Your task to perform on an android device: uninstall "Spotify: Music and Podcasts" Image 0: 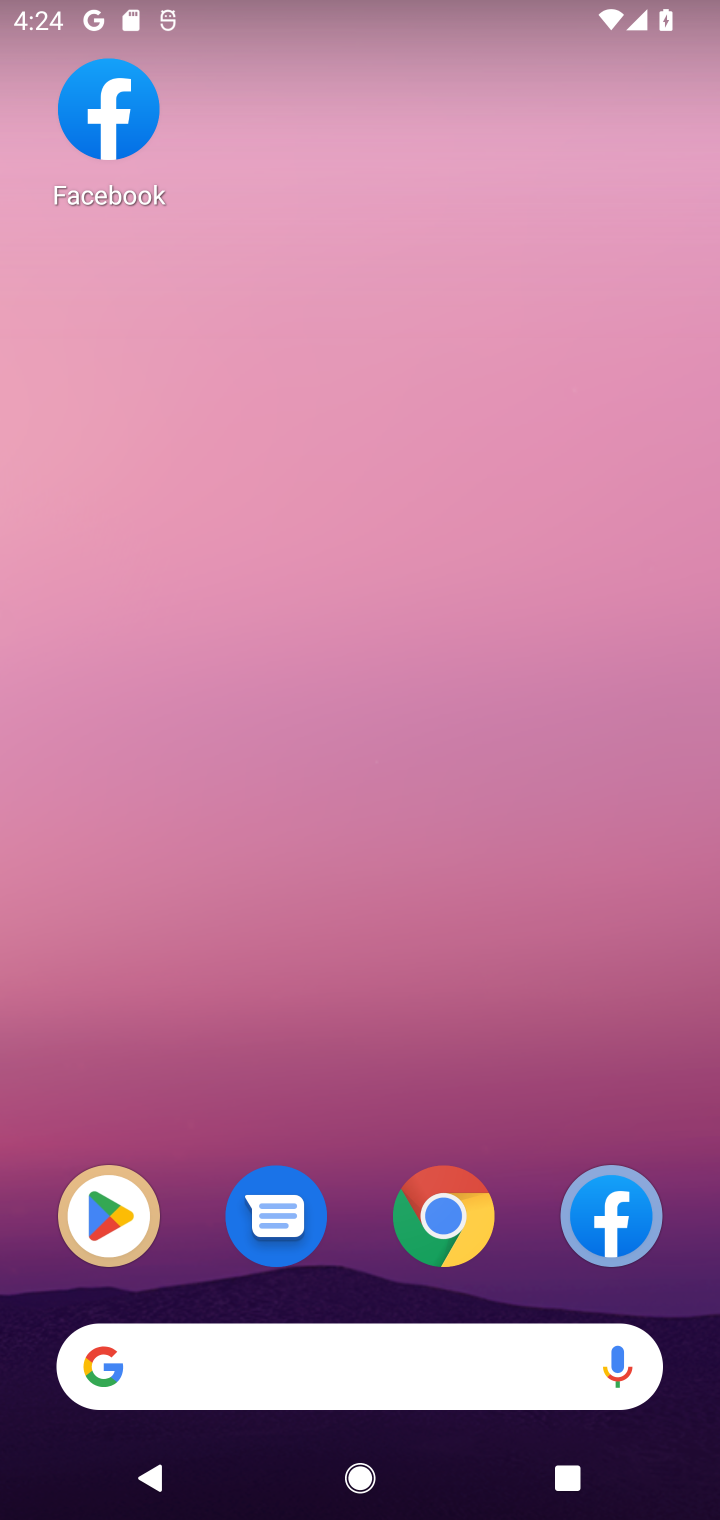
Step 0: click (150, 1216)
Your task to perform on an android device: uninstall "Spotify: Music and Podcasts" Image 1: 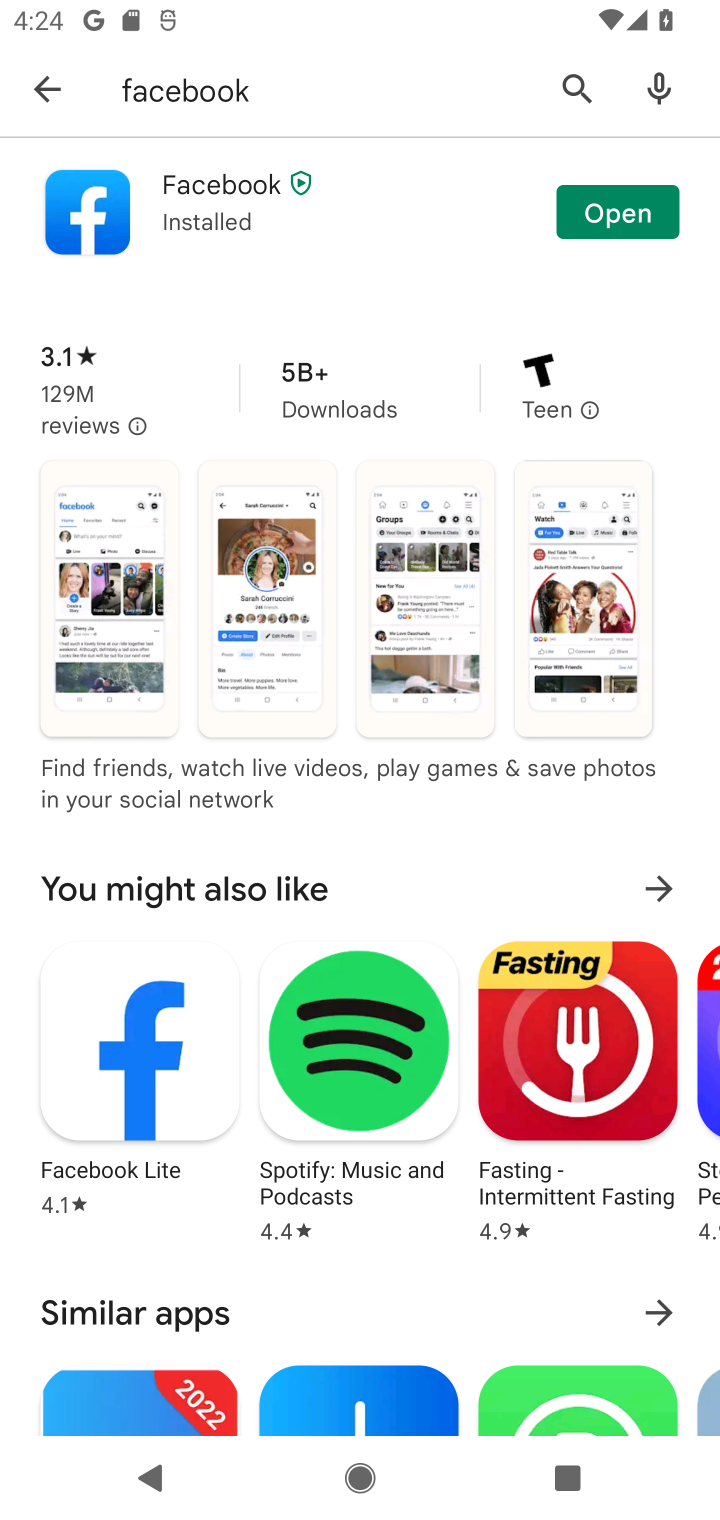
Step 1: click (582, 104)
Your task to perform on an android device: uninstall "Spotify: Music and Podcasts" Image 2: 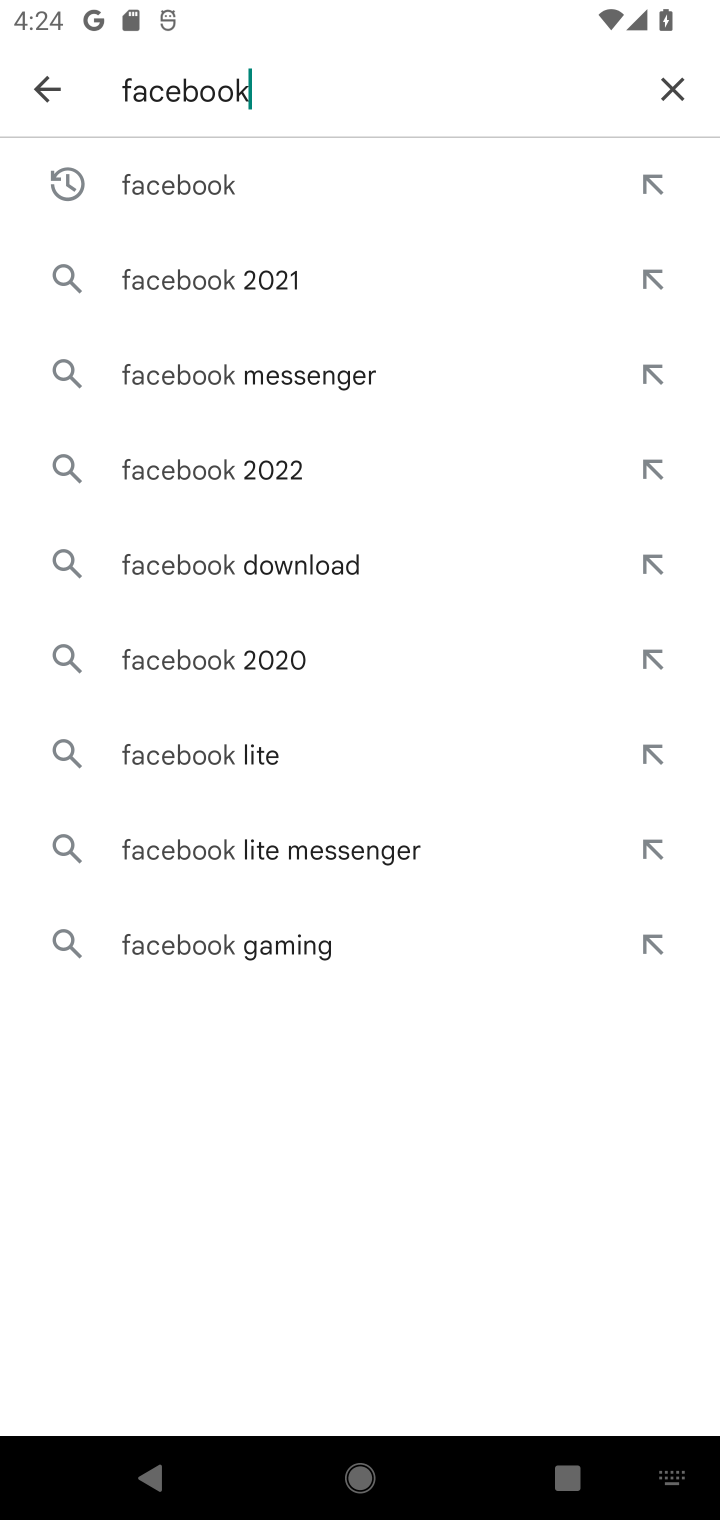
Step 2: click (645, 104)
Your task to perform on an android device: uninstall "Spotify: Music and Podcasts" Image 3: 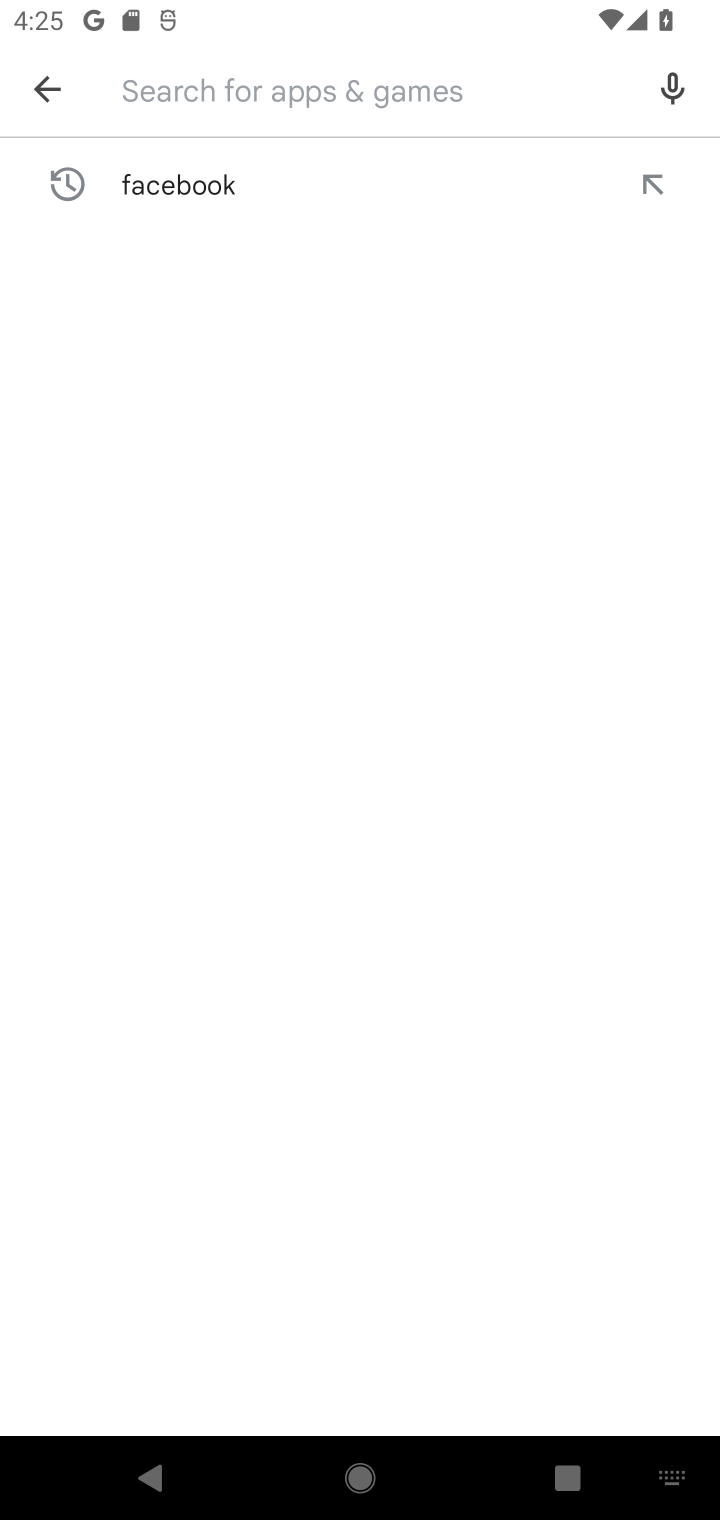
Step 3: type "spotify"
Your task to perform on an android device: uninstall "Spotify: Music and Podcasts" Image 4: 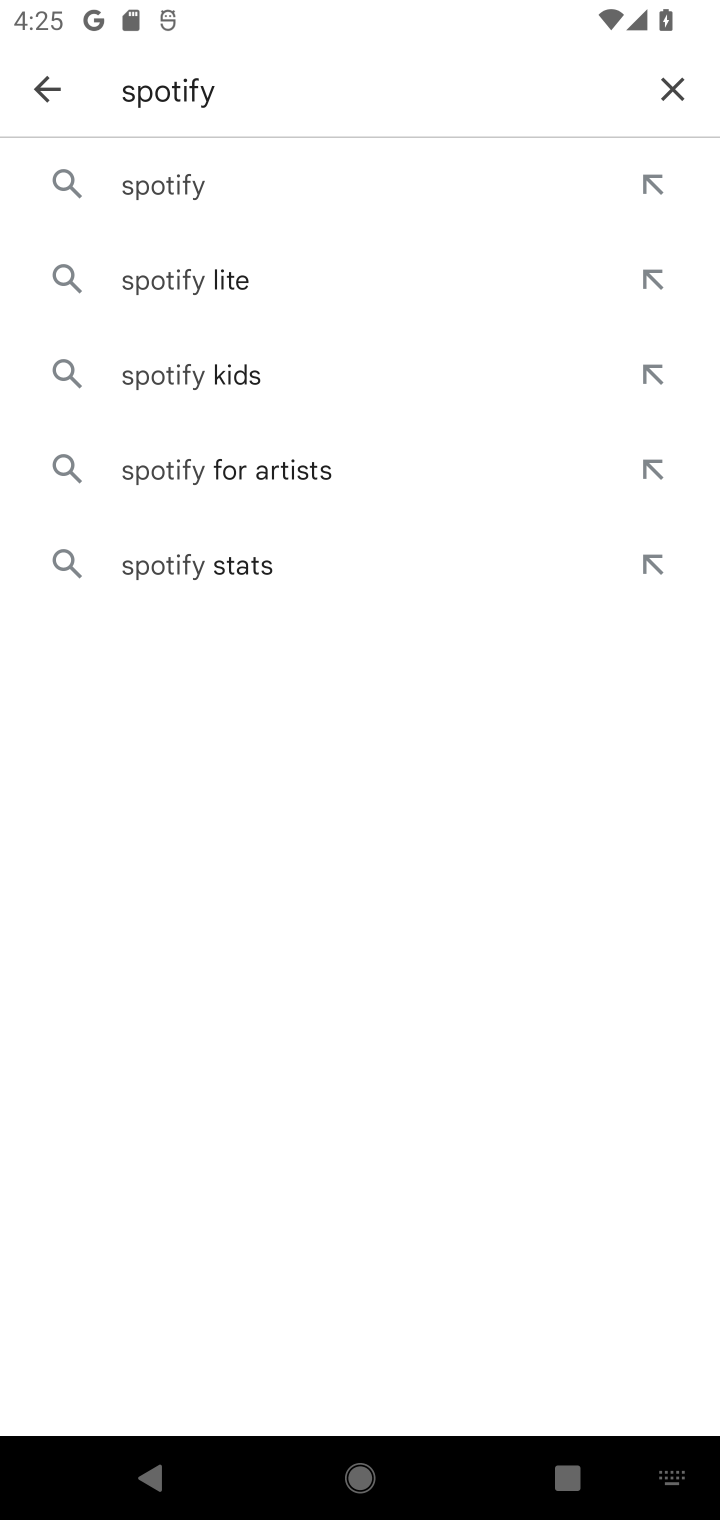
Step 4: click (364, 214)
Your task to perform on an android device: uninstall "Spotify: Music and Podcasts" Image 5: 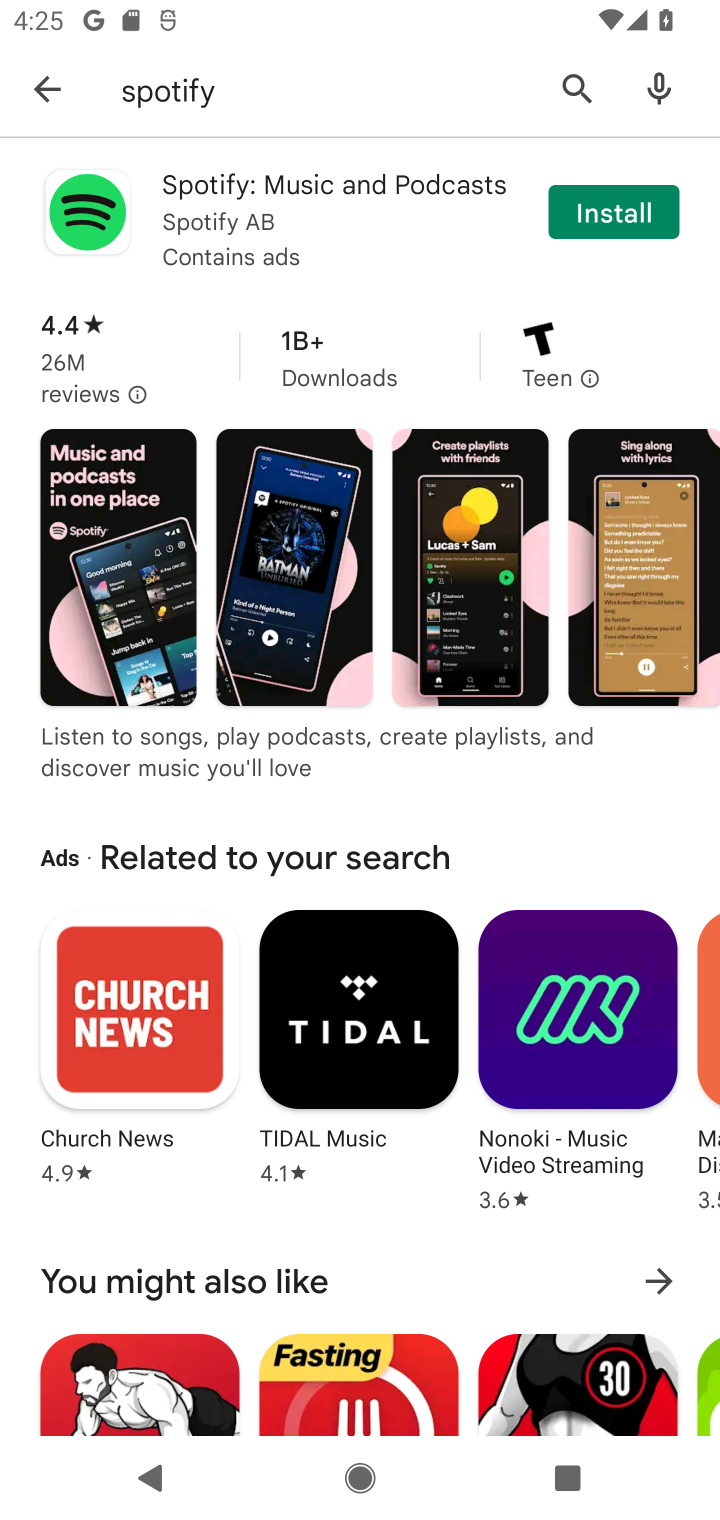
Step 5: click (613, 214)
Your task to perform on an android device: uninstall "Spotify: Music and Podcasts" Image 6: 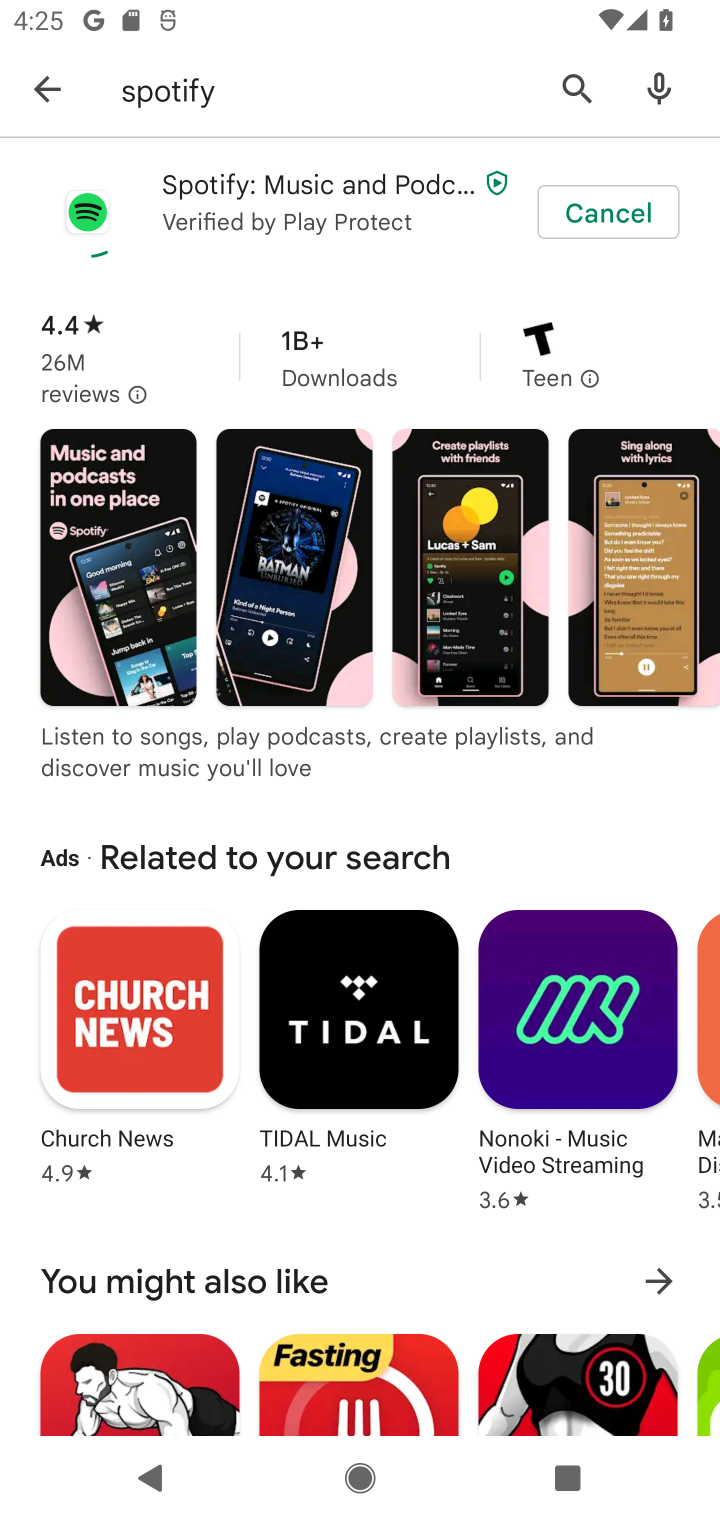
Step 6: task complete